Your task to perform on an android device: Is it going to rain today? Image 0: 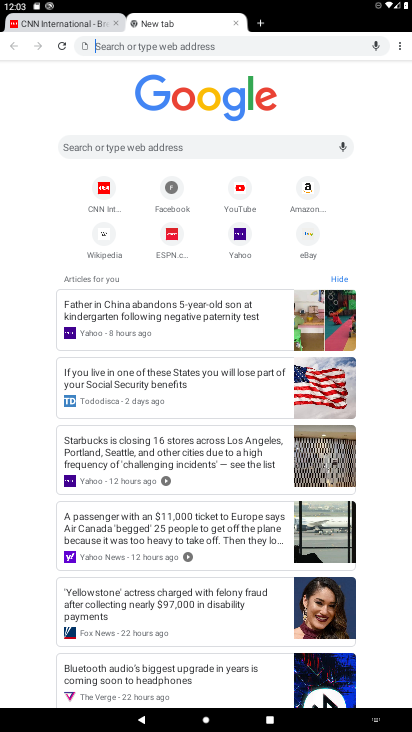
Step 0: press home button
Your task to perform on an android device: Is it going to rain today? Image 1: 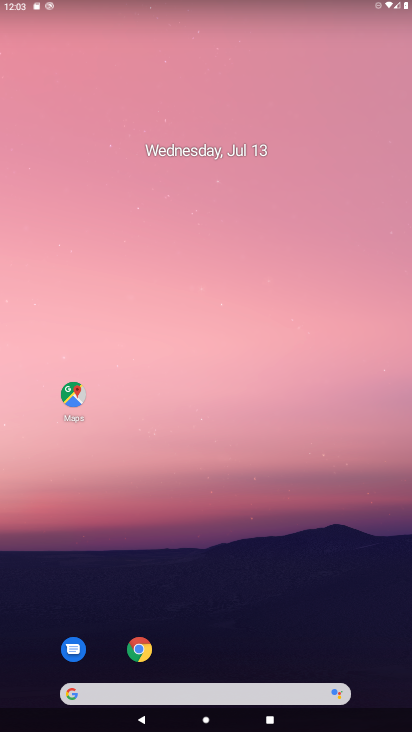
Step 1: task complete